Your task to perform on an android device: Open the calendar app, open the side menu, and click the "Day" option Image 0: 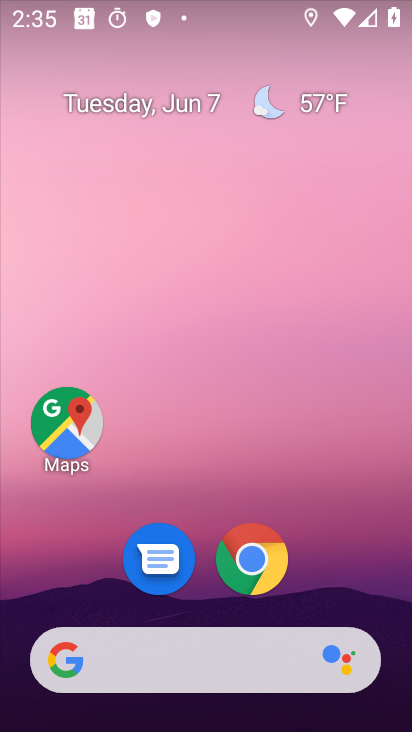
Step 0: drag from (341, 547) to (237, 23)
Your task to perform on an android device: Open the calendar app, open the side menu, and click the "Day" option Image 1: 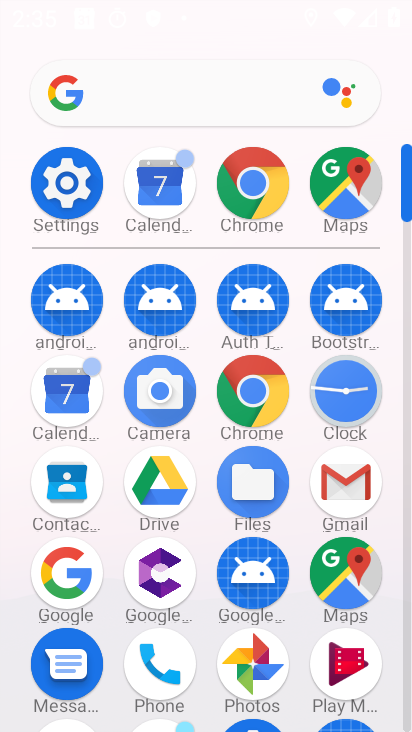
Step 1: drag from (12, 572) to (4, 258)
Your task to perform on an android device: Open the calendar app, open the side menu, and click the "Day" option Image 2: 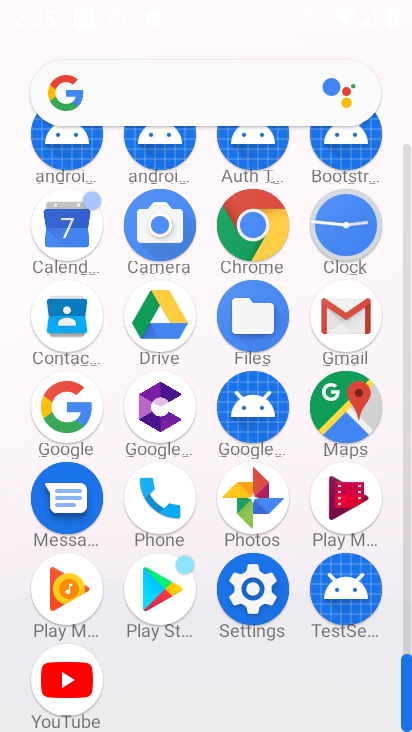
Step 2: click (66, 222)
Your task to perform on an android device: Open the calendar app, open the side menu, and click the "Day" option Image 3: 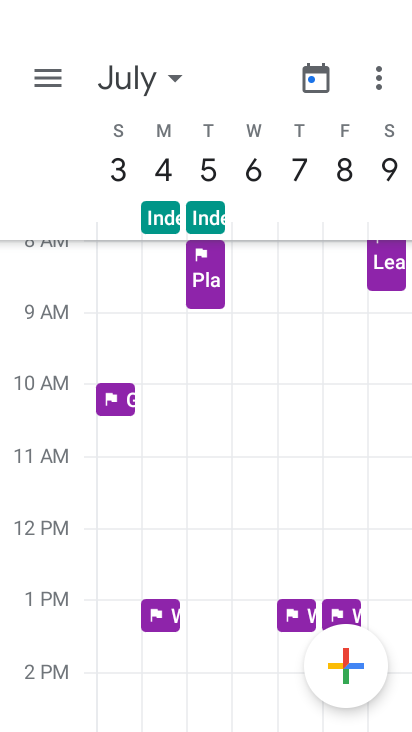
Step 3: click (53, 71)
Your task to perform on an android device: Open the calendar app, open the side menu, and click the "Day" option Image 4: 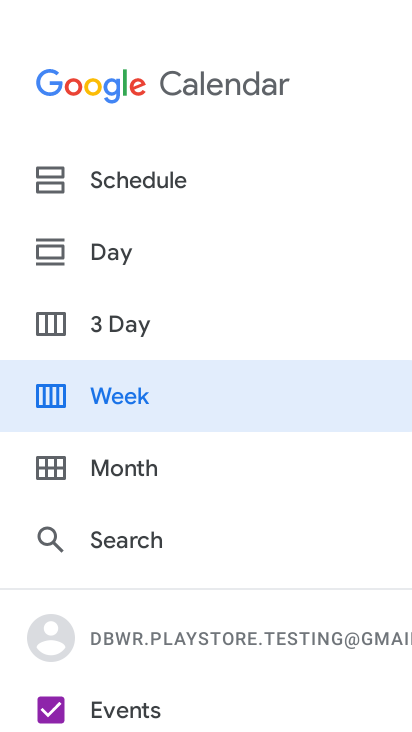
Step 4: click (139, 253)
Your task to perform on an android device: Open the calendar app, open the side menu, and click the "Day" option Image 5: 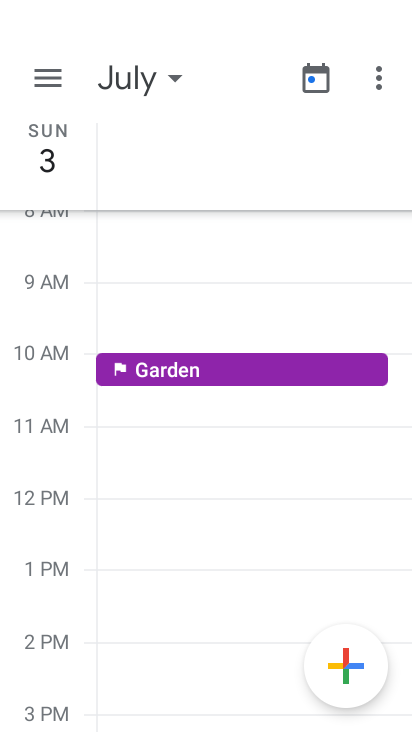
Step 5: task complete